Your task to perform on an android device: open chrome privacy settings Image 0: 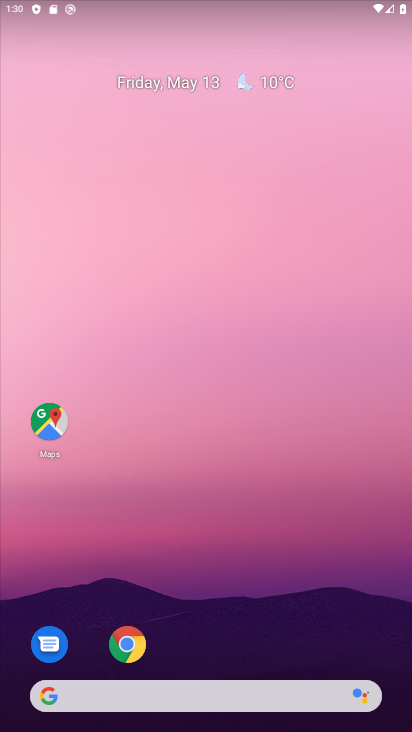
Step 0: drag from (273, 609) to (351, 2)
Your task to perform on an android device: open chrome privacy settings Image 1: 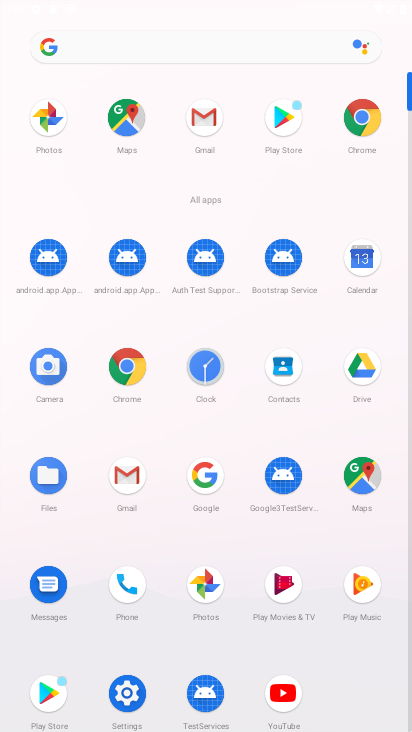
Step 1: click (129, 690)
Your task to perform on an android device: open chrome privacy settings Image 2: 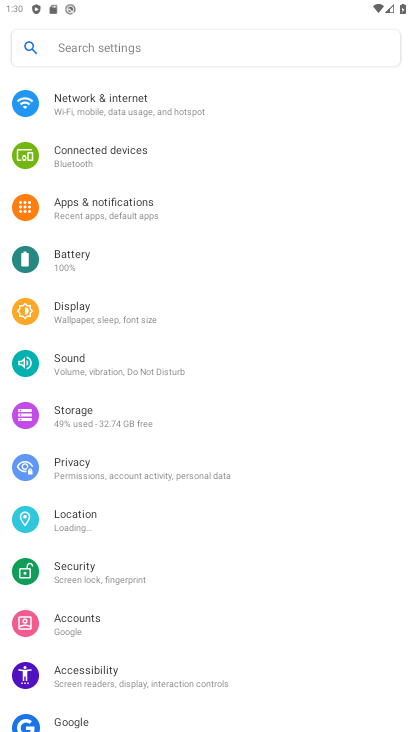
Step 2: press home button
Your task to perform on an android device: open chrome privacy settings Image 3: 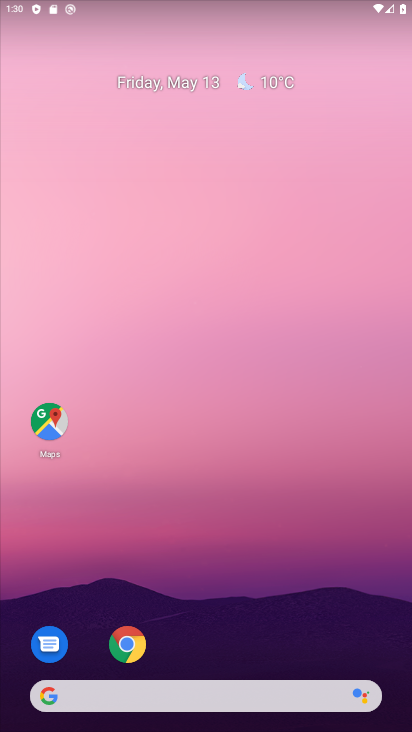
Step 3: drag from (268, 676) to (306, 14)
Your task to perform on an android device: open chrome privacy settings Image 4: 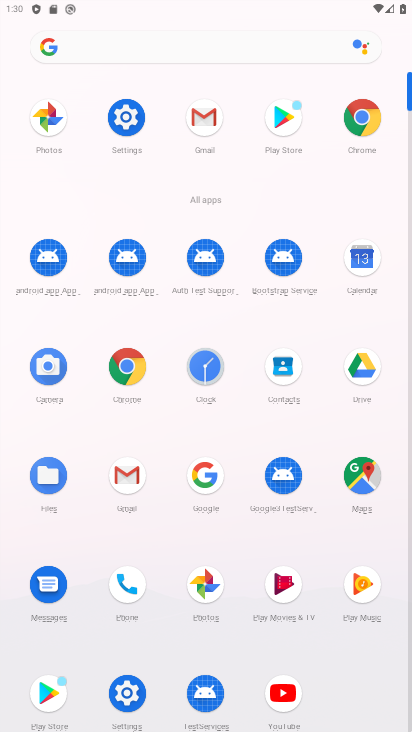
Step 4: click (120, 373)
Your task to perform on an android device: open chrome privacy settings Image 5: 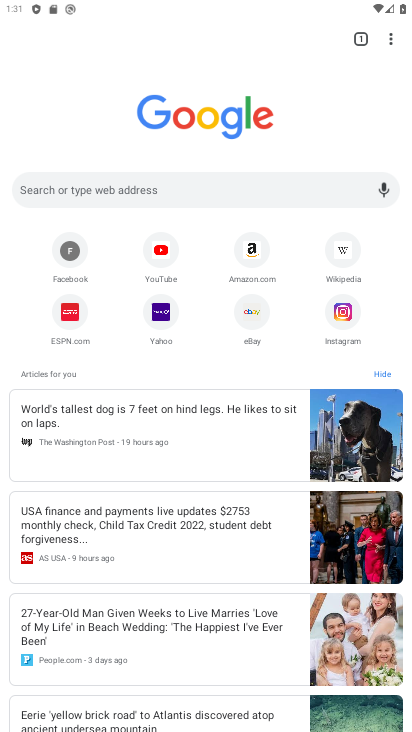
Step 5: drag from (393, 35) to (249, 336)
Your task to perform on an android device: open chrome privacy settings Image 6: 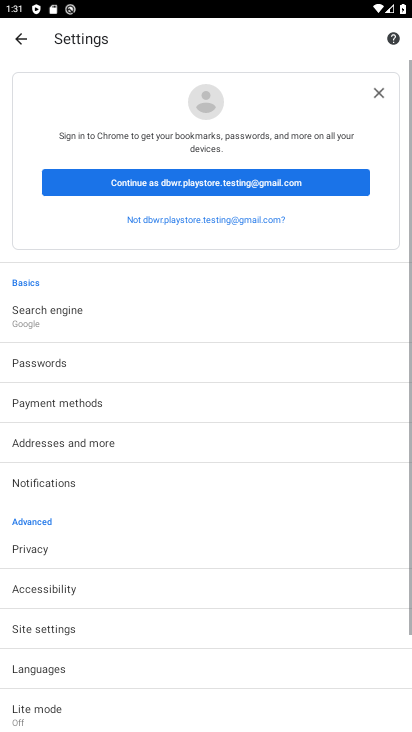
Step 6: click (103, 557)
Your task to perform on an android device: open chrome privacy settings Image 7: 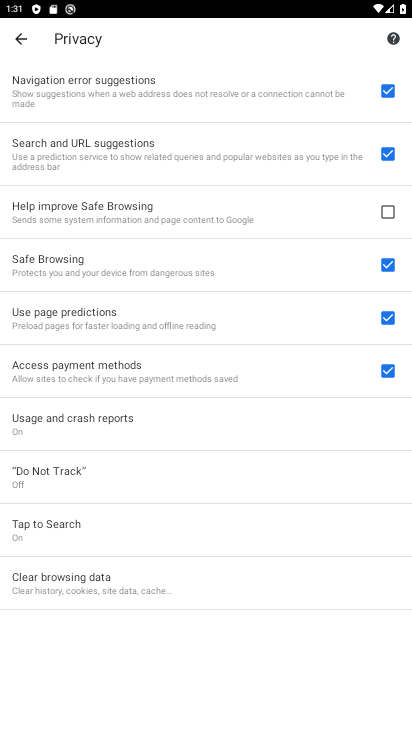
Step 7: task complete